Your task to perform on an android device: turn off improve location accuracy Image 0: 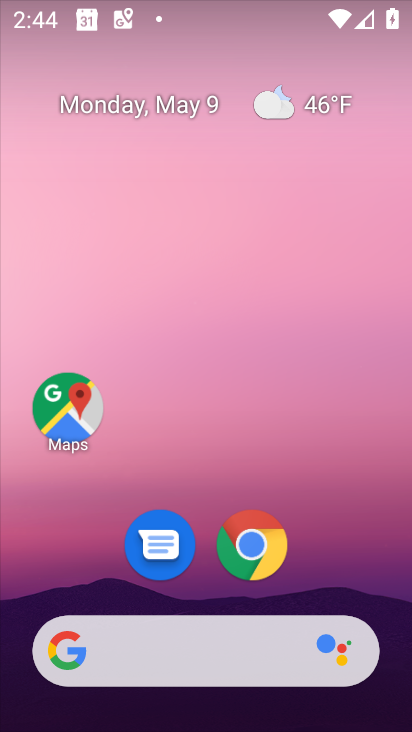
Step 0: drag from (186, 597) to (205, 198)
Your task to perform on an android device: turn off improve location accuracy Image 1: 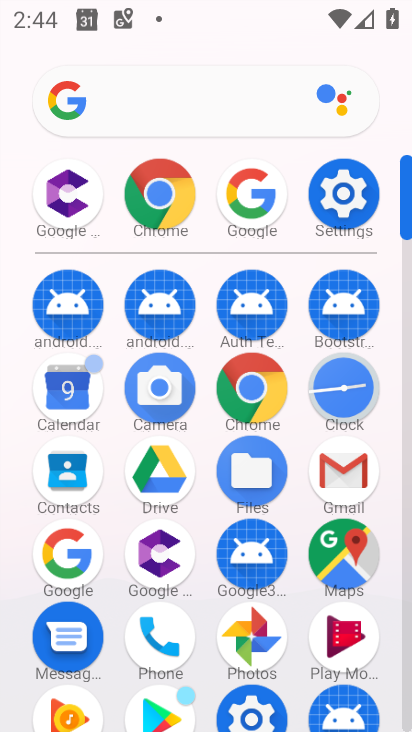
Step 1: click (339, 219)
Your task to perform on an android device: turn off improve location accuracy Image 2: 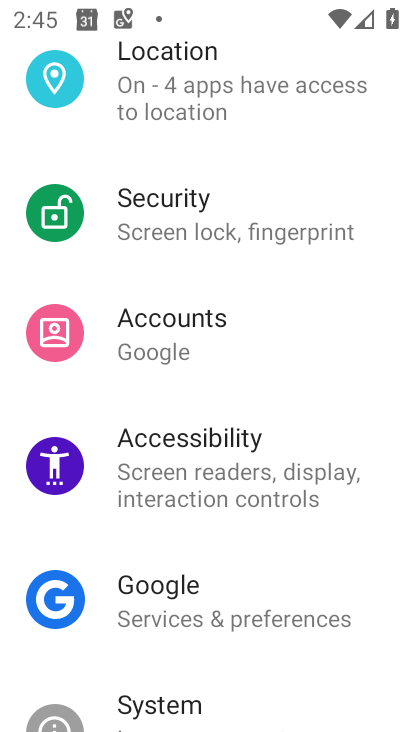
Step 2: drag from (235, 592) to (261, 385)
Your task to perform on an android device: turn off improve location accuracy Image 3: 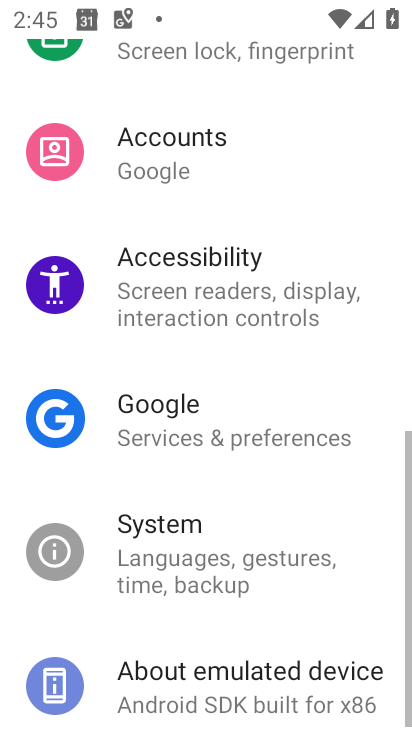
Step 3: drag from (256, 579) to (294, 584)
Your task to perform on an android device: turn off improve location accuracy Image 4: 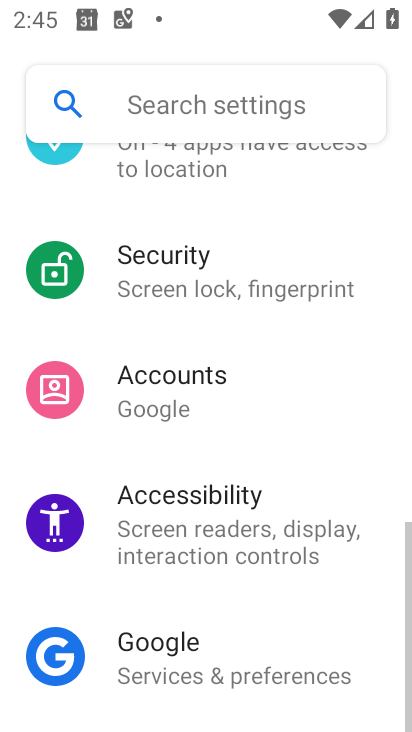
Step 4: drag from (249, 280) to (255, 496)
Your task to perform on an android device: turn off improve location accuracy Image 5: 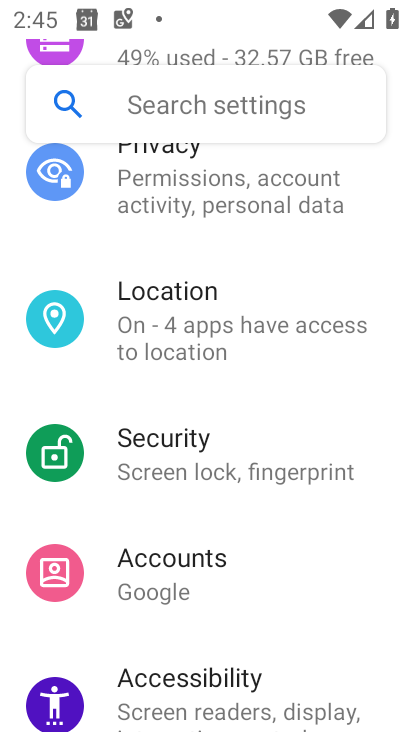
Step 5: click (216, 335)
Your task to perform on an android device: turn off improve location accuracy Image 6: 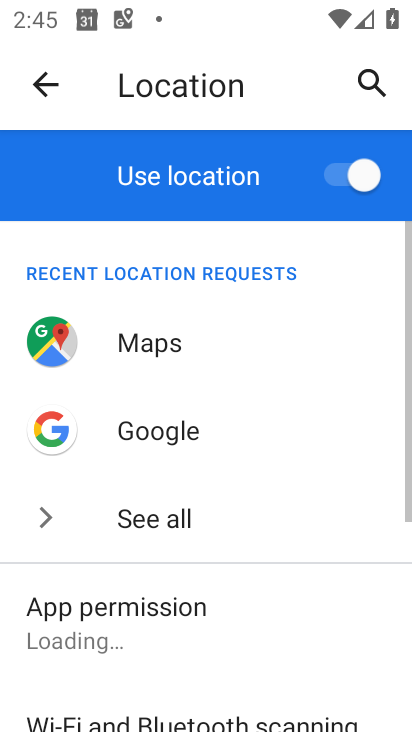
Step 6: drag from (254, 640) to (271, 409)
Your task to perform on an android device: turn off improve location accuracy Image 7: 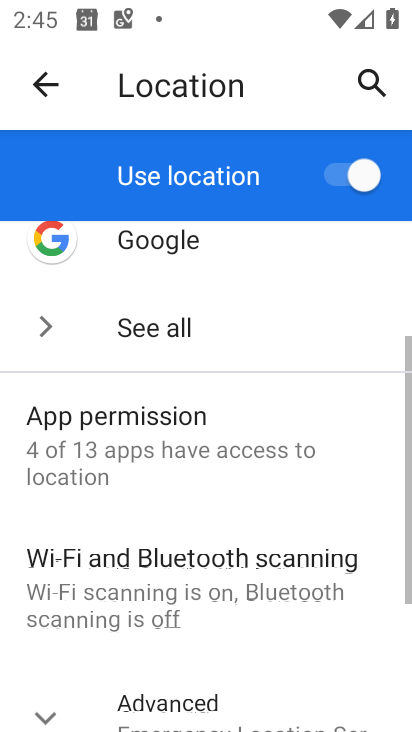
Step 7: drag from (254, 575) to (276, 404)
Your task to perform on an android device: turn off improve location accuracy Image 8: 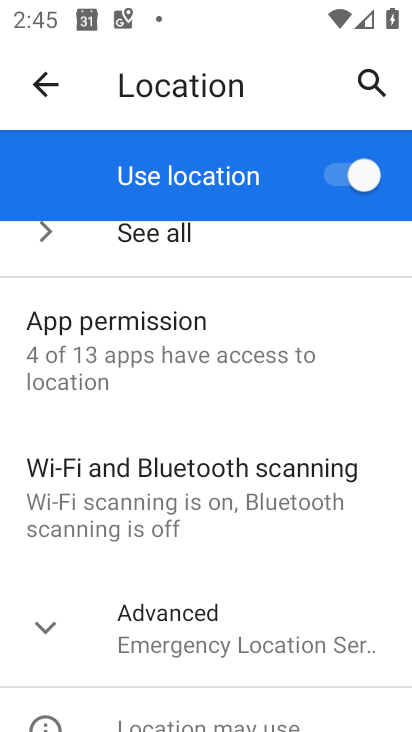
Step 8: click (229, 628)
Your task to perform on an android device: turn off improve location accuracy Image 9: 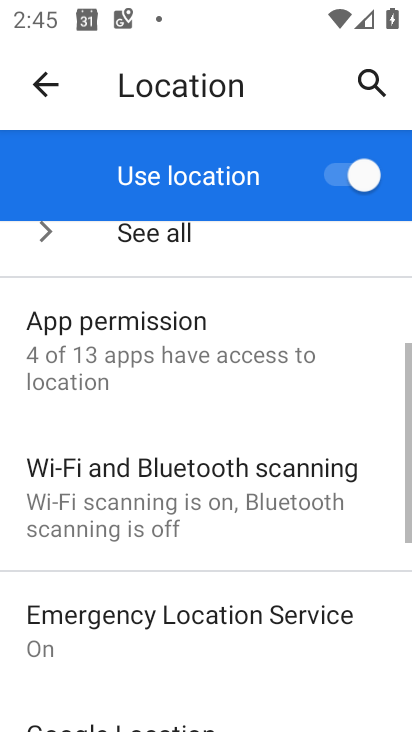
Step 9: drag from (224, 668) to (258, 400)
Your task to perform on an android device: turn off improve location accuracy Image 10: 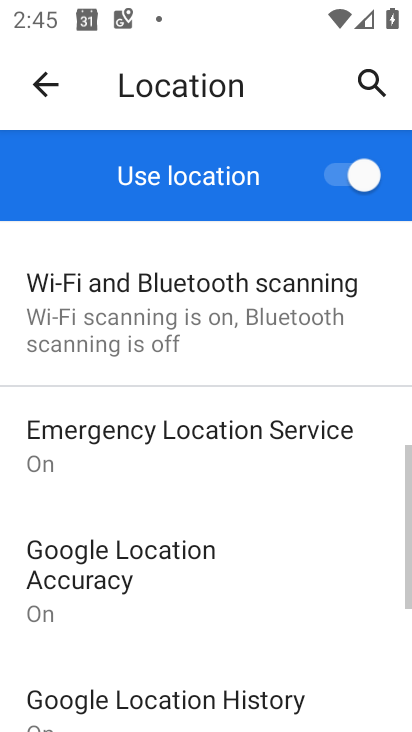
Step 10: drag from (258, 631) to (276, 469)
Your task to perform on an android device: turn off improve location accuracy Image 11: 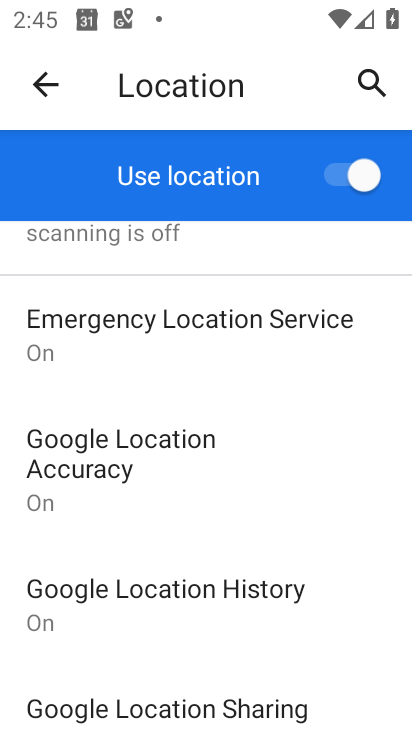
Step 11: drag from (218, 588) to (228, 479)
Your task to perform on an android device: turn off improve location accuracy Image 12: 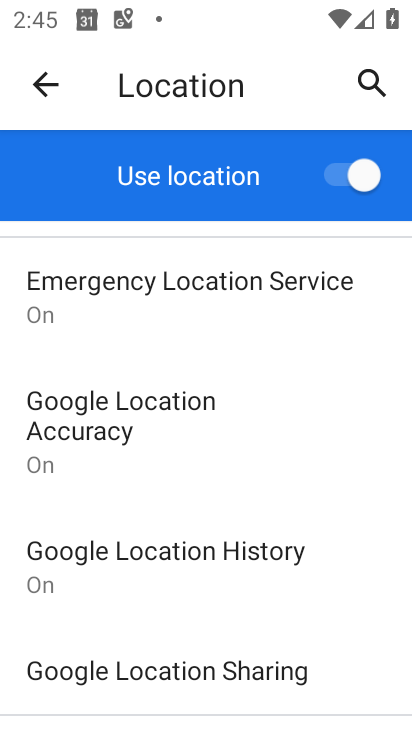
Step 12: click (185, 414)
Your task to perform on an android device: turn off improve location accuracy Image 13: 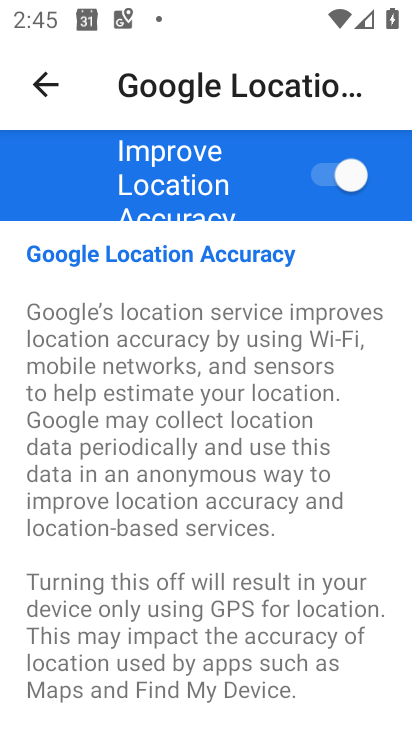
Step 13: click (320, 187)
Your task to perform on an android device: turn off improve location accuracy Image 14: 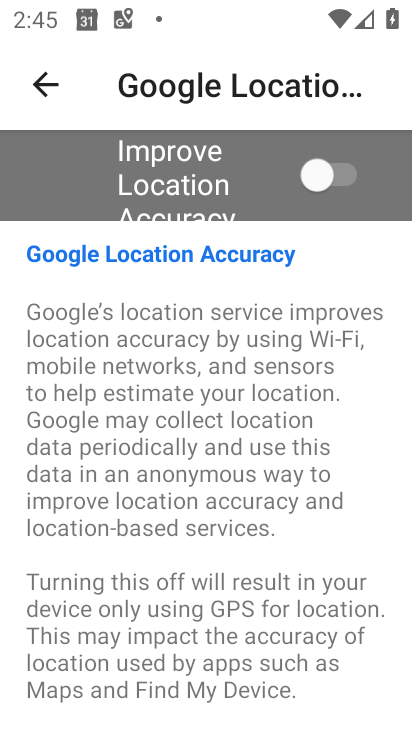
Step 14: task complete